Your task to perform on an android device: empty trash in google photos Image 0: 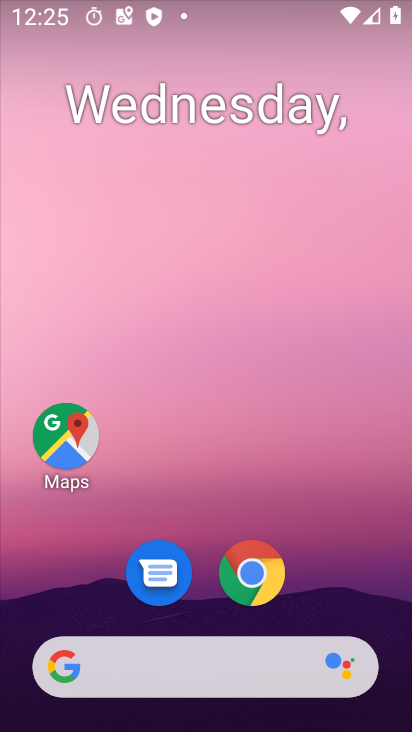
Step 0: drag from (252, 37) to (172, 0)
Your task to perform on an android device: empty trash in google photos Image 1: 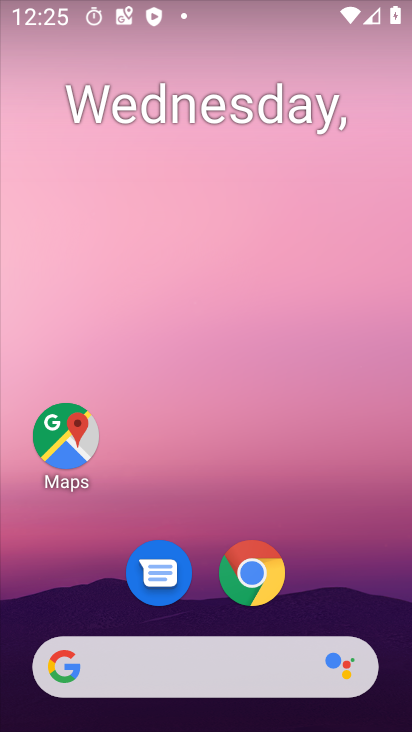
Step 1: drag from (316, 450) to (188, 37)
Your task to perform on an android device: empty trash in google photos Image 2: 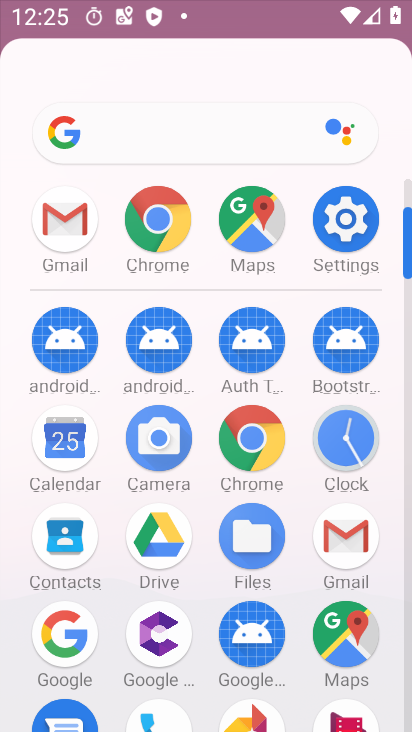
Step 2: drag from (312, 405) to (249, 5)
Your task to perform on an android device: empty trash in google photos Image 3: 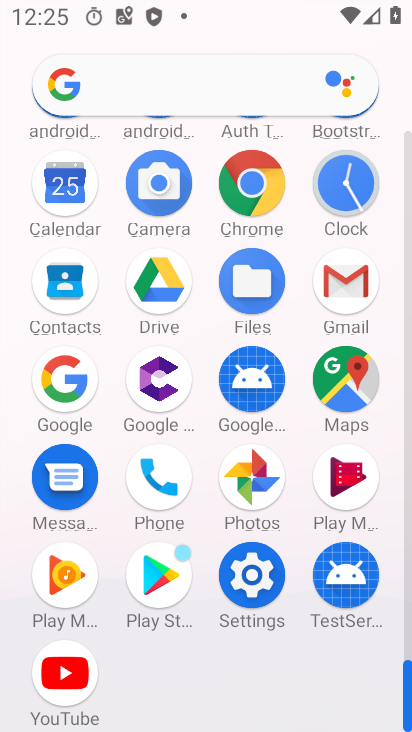
Step 3: click (247, 583)
Your task to perform on an android device: empty trash in google photos Image 4: 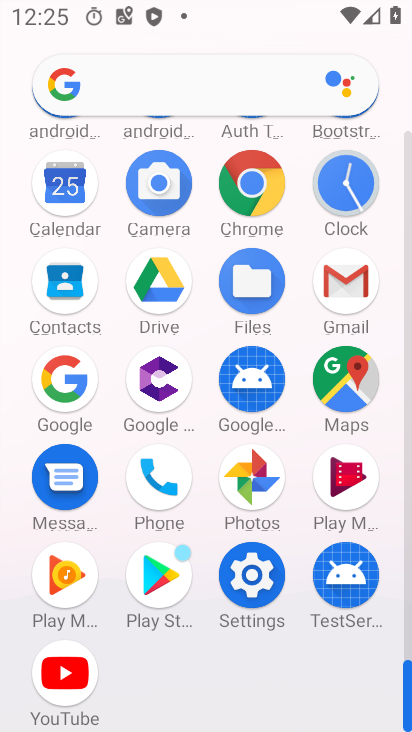
Step 4: click (245, 583)
Your task to perform on an android device: empty trash in google photos Image 5: 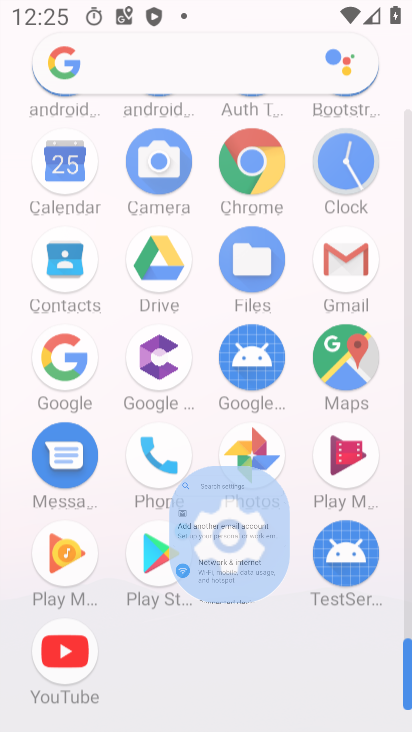
Step 5: click (245, 583)
Your task to perform on an android device: empty trash in google photos Image 6: 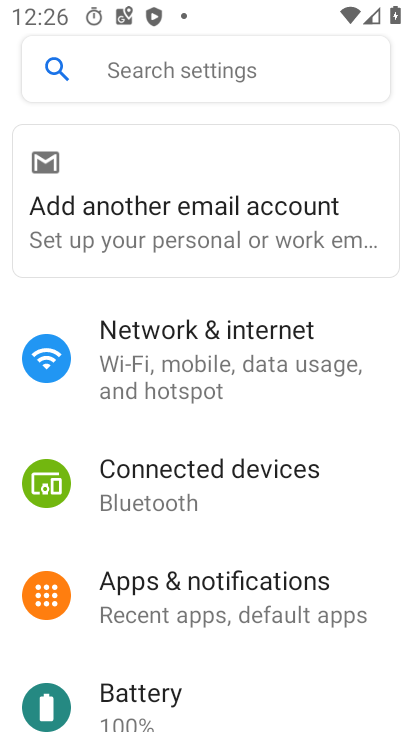
Step 6: click (165, 377)
Your task to perform on an android device: empty trash in google photos Image 7: 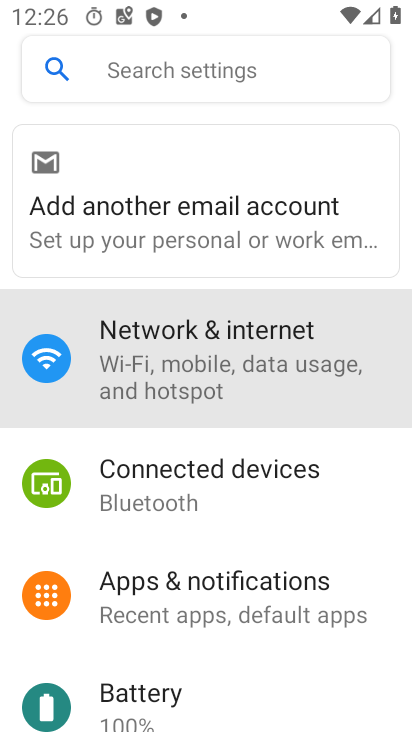
Step 7: click (165, 377)
Your task to perform on an android device: empty trash in google photos Image 8: 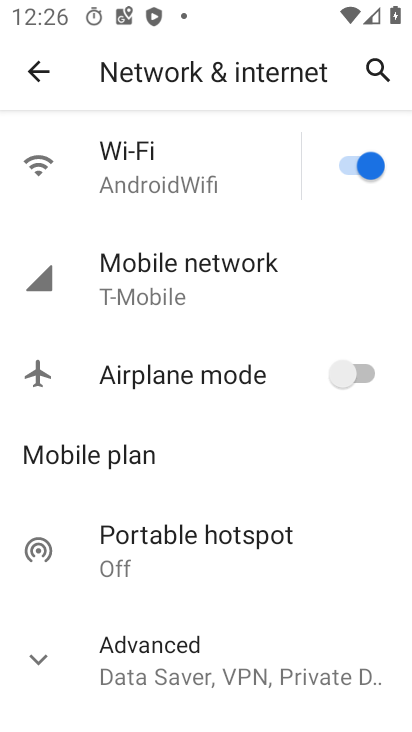
Step 8: drag from (218, 562) to (182, 176)
Your task to perform on an android device: empty trash in google photos Image 9: 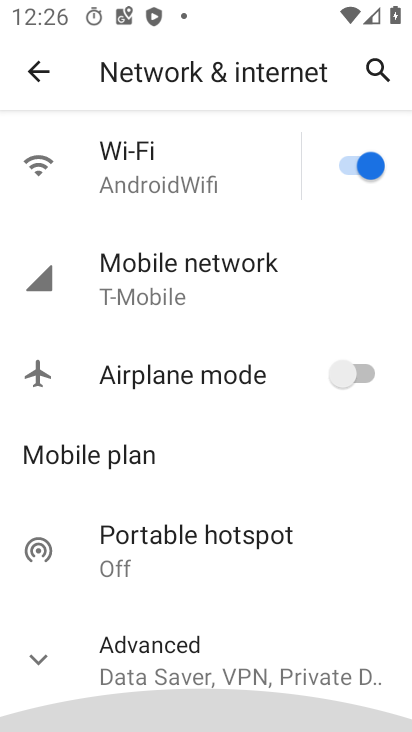
Step 9: drag from (164, 152) to (162, 56)
Your task to perform on an android device: empty trash in google photos Image 10: 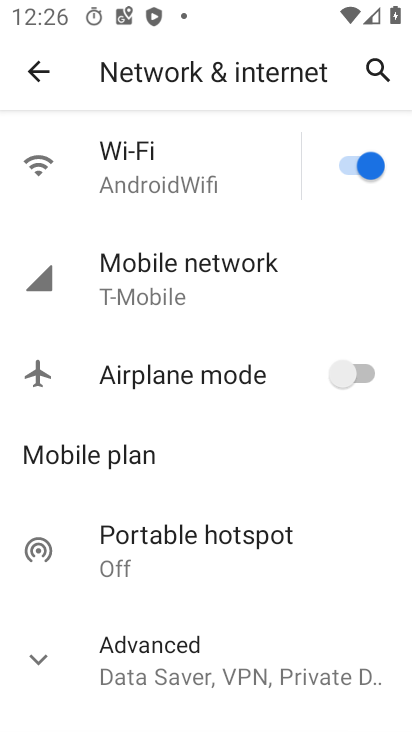
Step 10: drag from (233, 299) to (207, 31)
Your task to perform on an android device: empty trash in google photos Image 11: 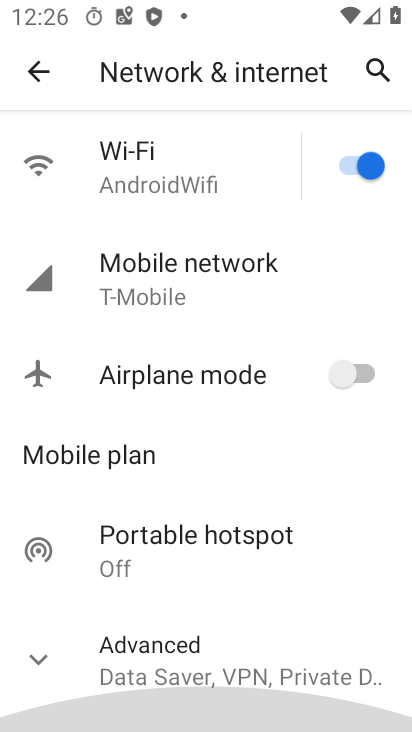
Step 11: drag from (212, 392) to (163, 87)
Your task to perform on an android device: empty trash in google photos Image 12: 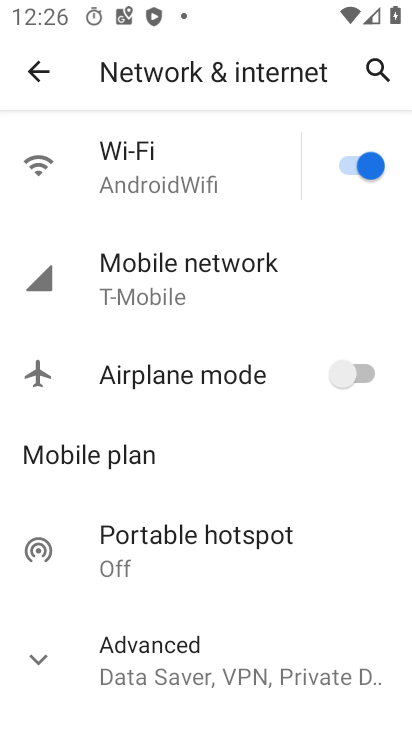
Step 12: drag from (248, 514) to (298, 229)
Your task to perform on an android device: empty trash in google photos Image 13: 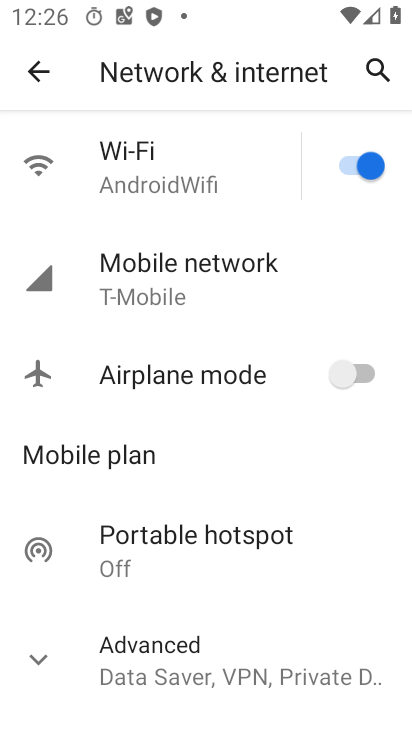
Step 13: drag from (300, 447) to (273, 148)
Your task to perform on an android device: empty trash in google photos Image 14: 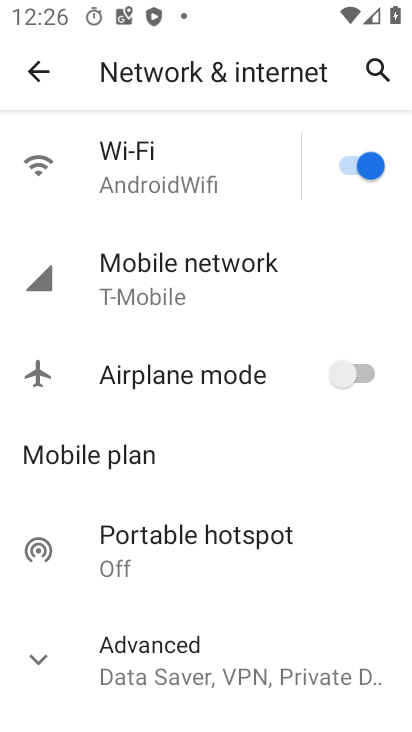
Step 14: click (37, 77)
Your task to perform on an android device: empty trash in google photos Image 15: 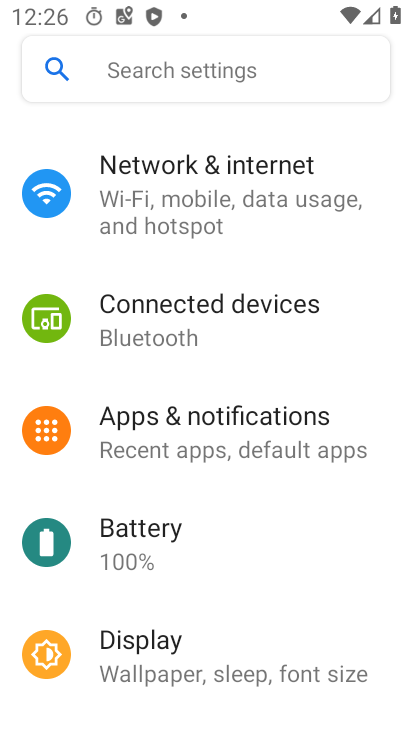
Step 15: click (37, 70)
Your task to perform on an android device: empty trash in google photos Image 16: 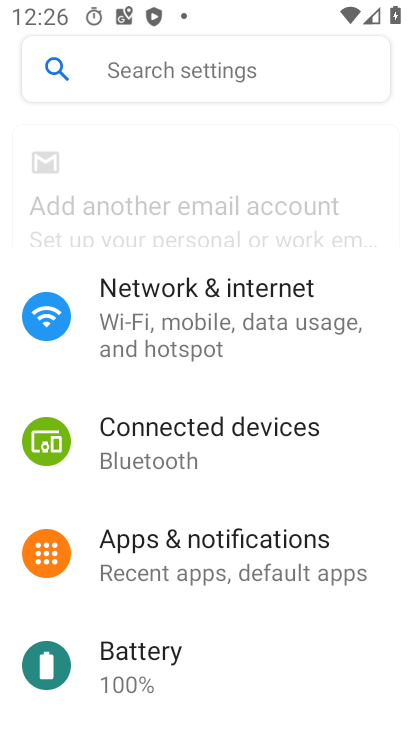
Step 16: click (40, 72)
Your task to perform on an android device: empty trash in google photos Image 17: 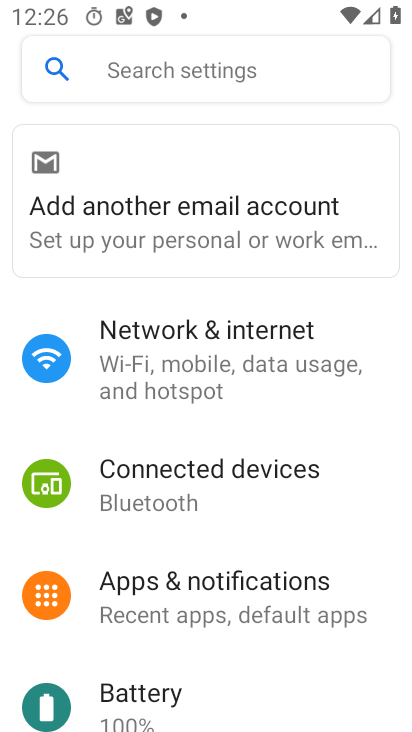
Step 17: drag from (245, 438) to (218, 95)
Your task to perform on an android device: empty trash in google photos Image 18: 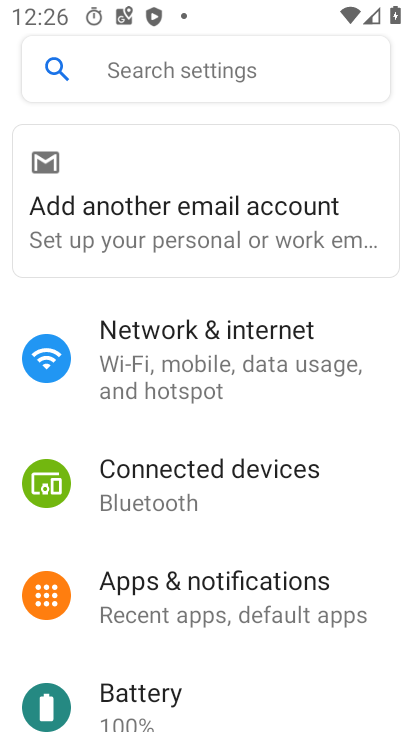
Step 18: click (257, 133)
Your task to perform on an android device: empty trash in google photos Image 19: 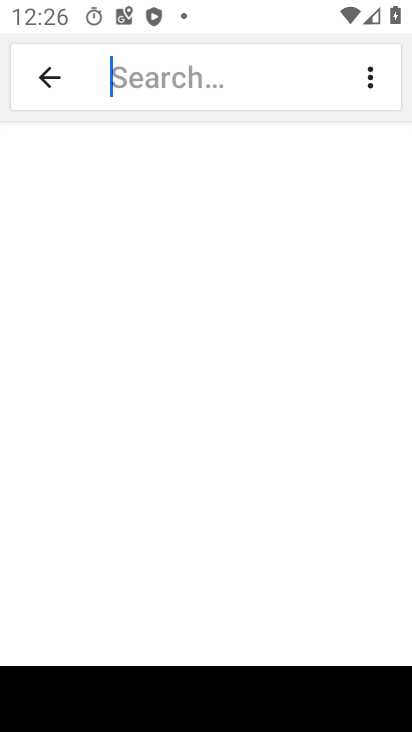
Step 19: drag from (289, 637) to (279, 89)
Your task to perform on an android device: empty trash in google photos Image 20: 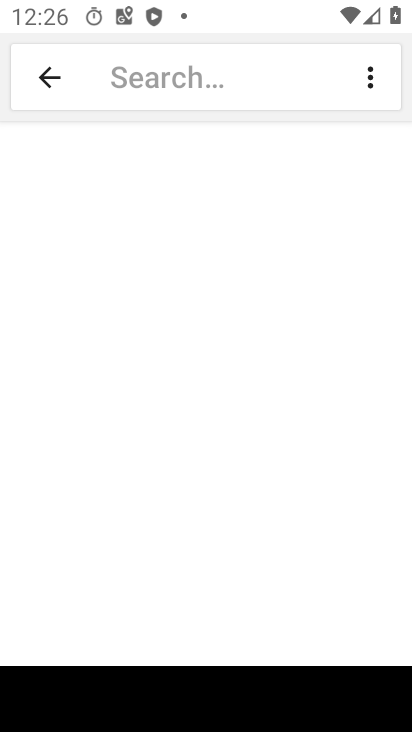
Step 20: drag from (247, 606) to (252, 43)
Your task to perform on an android device: empty trash in google photos Image 21: 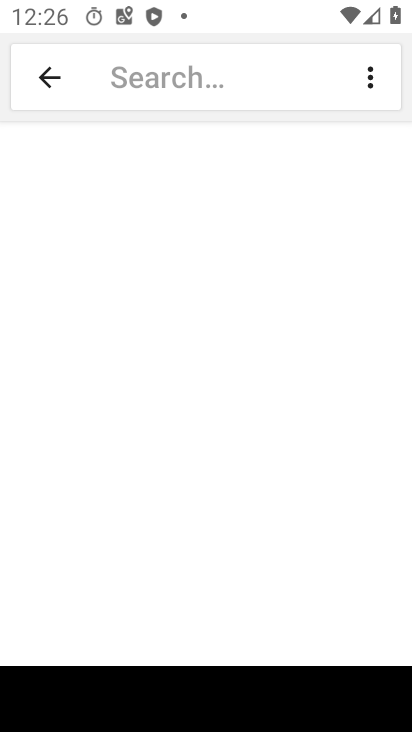
Step 21: press back button
Your task to perform on an android device: empty trash in google photos Image 22: 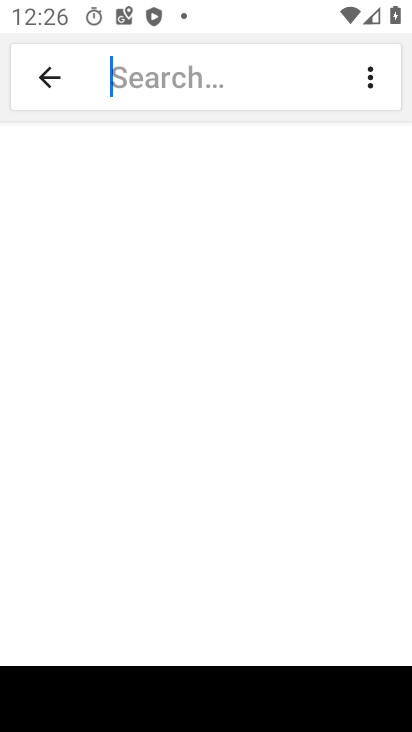
Step 22: press back button
Your task to perform on an android device: empty trash in google photos Image 23: 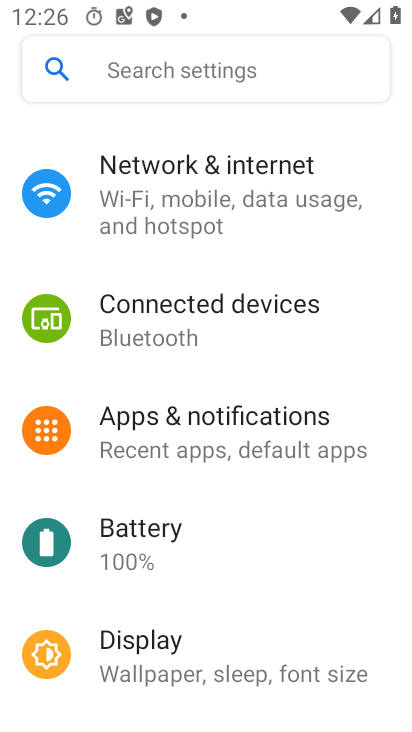
Step 23: press back button
Your task to perform on an android device: empty trash in google photos Image 24: 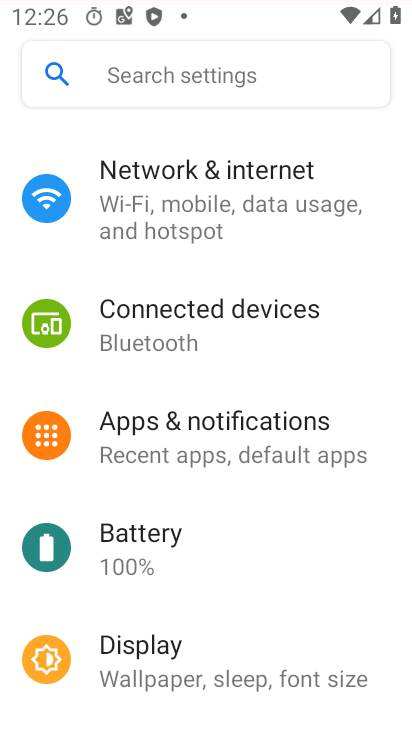
Step 24: click (43, 82)
Your task to perform on an android device: empty trash in google photos Image 25: 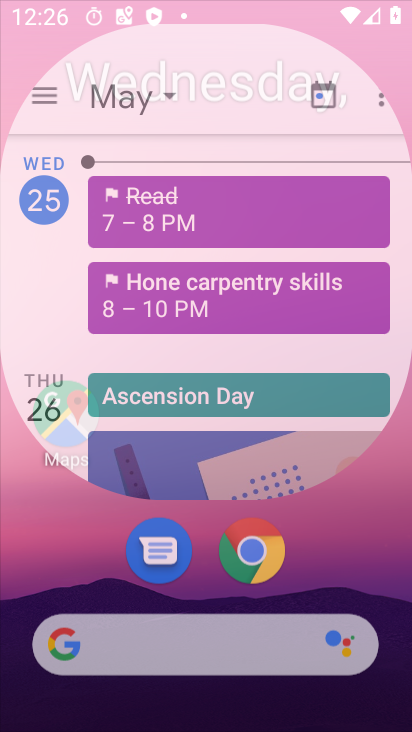
Step 25: drag from (216, 459) to (212, 207)
Your task to perform on an android device: empty trash in google photos Image 26: 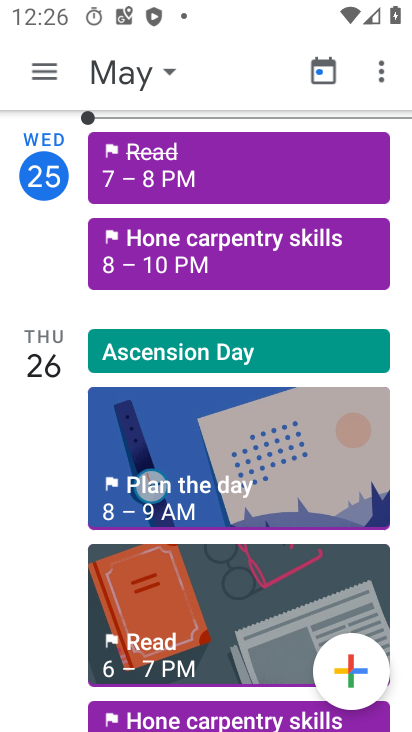
Step 26: drag from (274, 403) to (242, 70)
Your task to perform on an android device: empty trash in google photos Image 27: 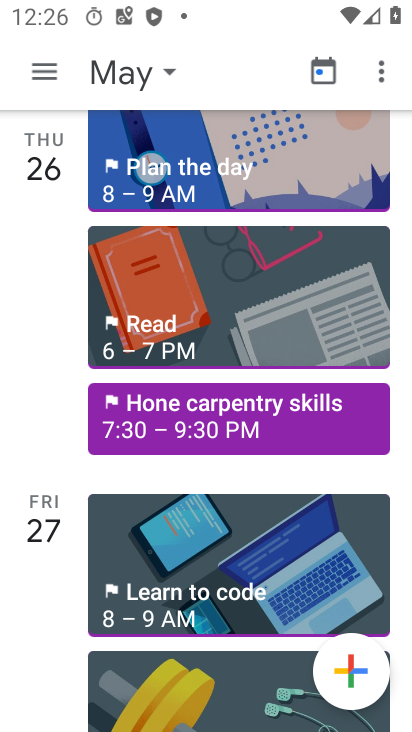
Step 27: click (164, 72)
Your task to perform on an android device: empty trash in google photos Image 28: 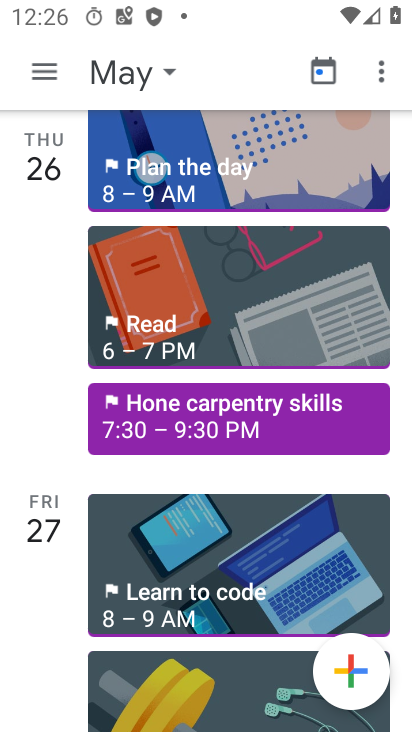
Step 28: click (164, 72)
Your task to perform on an android device: empty trash in google photos Image 29: 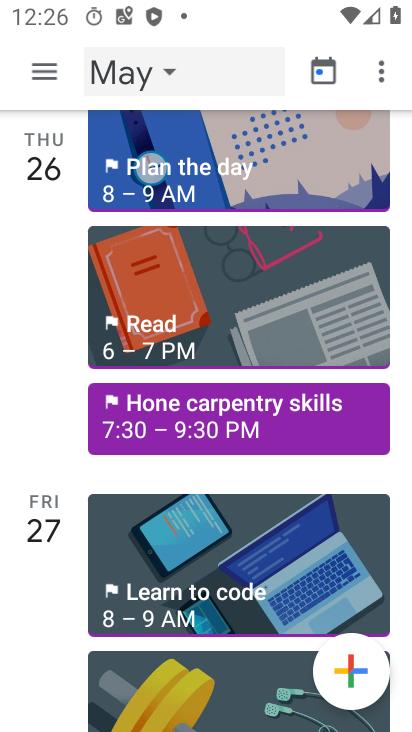
Step 29: click (164, 72)
Your task to perform on an android device: empty trash in google photos Image 30: 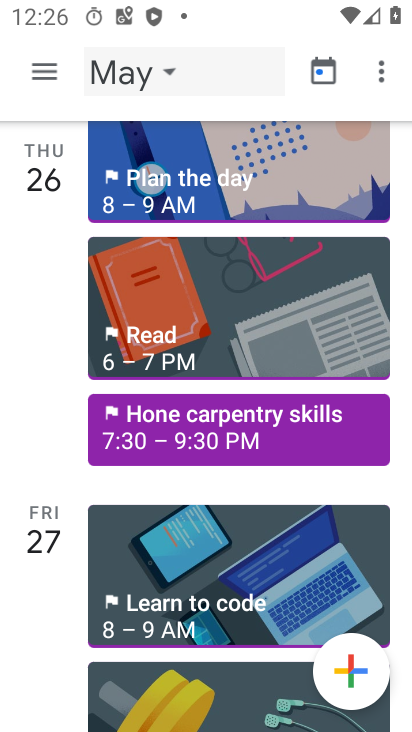
Step 30: click (164, 71)
Your task to perform on an android device: empty trash in google photos Image 31: 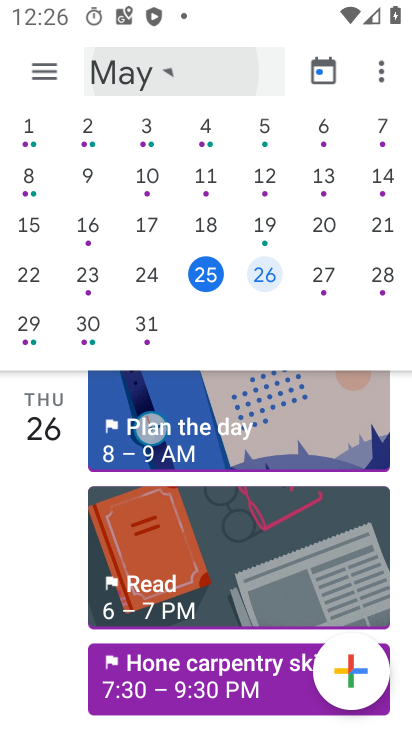
Step 31: click (164, 71)
Your task to perform on an android device: empty trash in google photos Image 32: 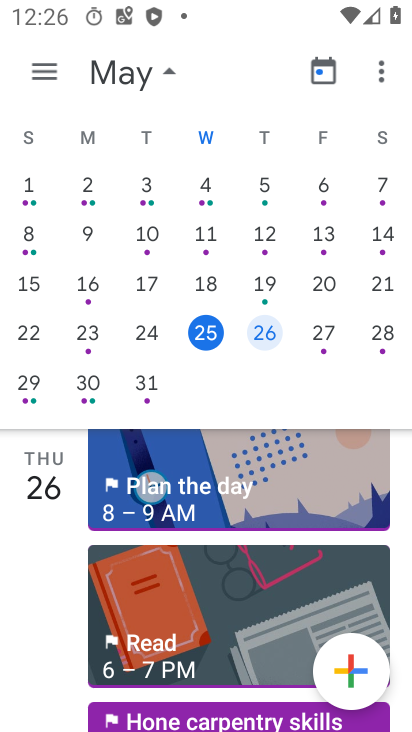
Step 32: press back button
Your task to perform on an android device: empty trash in google photos Image 33: 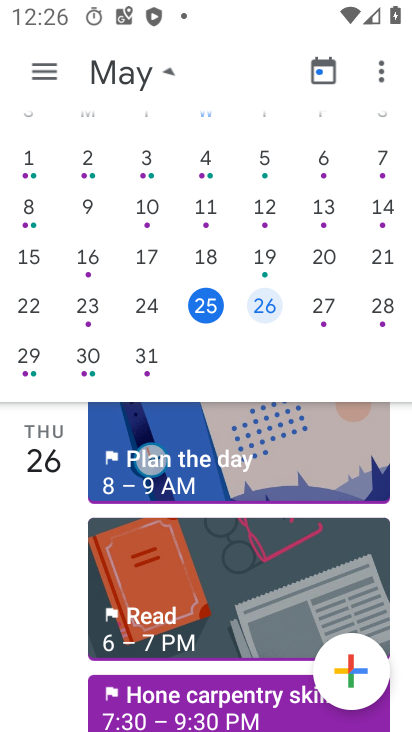
Step 33: press back button
Your task to perform on an android device: empty trash in google photos Image 34: 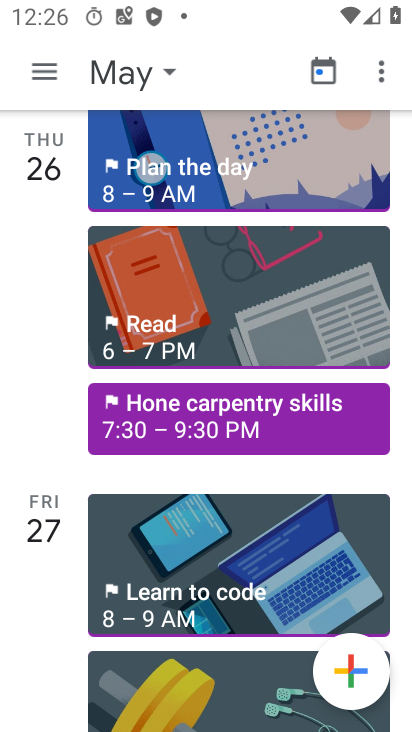
Step 34: press back button
Your task to perform on an android device: empty trash in google photos Image 35: 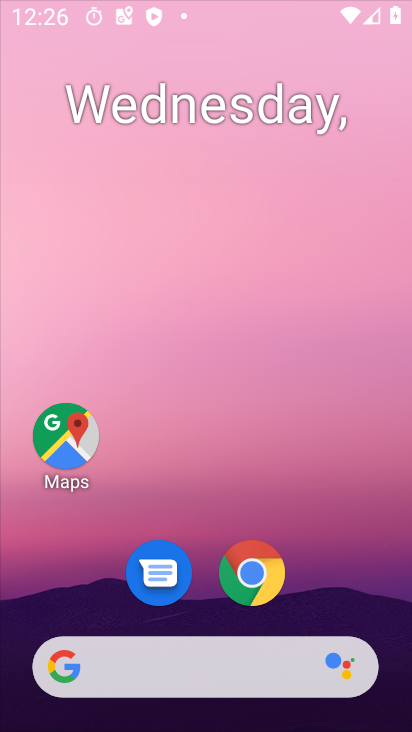
Step 35: press back button
Your task to perform on an android device: empty trash in google photos Image 36: 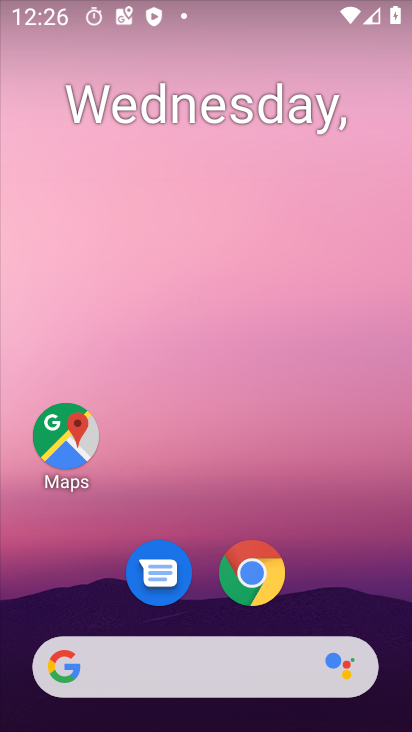
Step 36: drag from (283, 596) to (161, 250)
Your task to perform on an android device: empty trash in google photos Image 37: 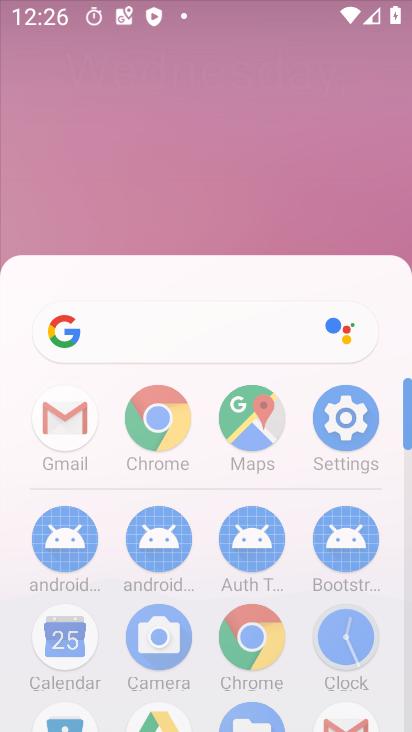
Step 37: drag from (284, 634) to (209, 161)
Your task to perform on an android device: empty trash in google photos Image 38: 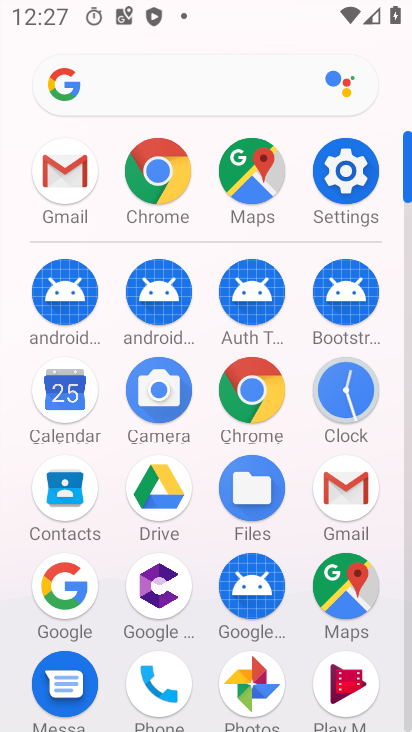
Step 38: drag from (190, 80) to (161, 174)
Your task to perform on an android device: empty trash in google photos Image 39: 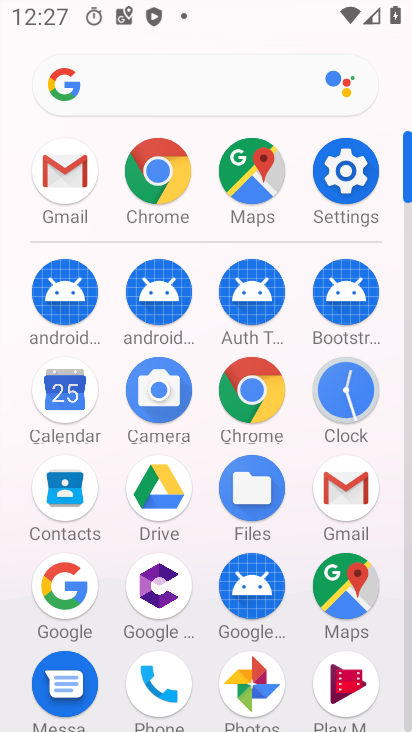
Step 39: drag from (216, 437) to (216, 229)
Your task to perform on an android device: empty trash in google photos Image 40: 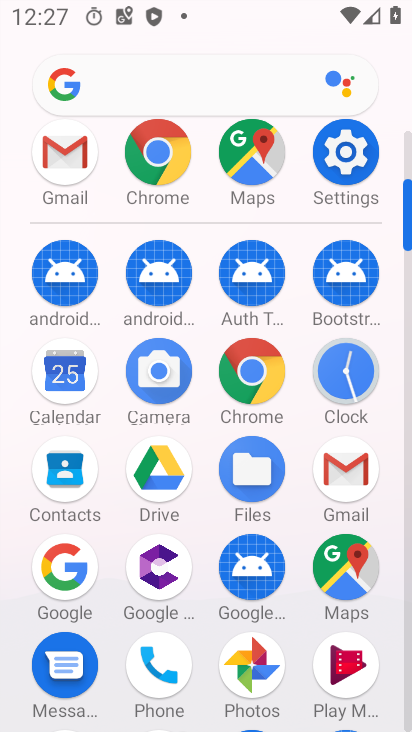
Step 40: click (251, 656)
Your task to perform on an android device: empty trash in google photos Image 41: 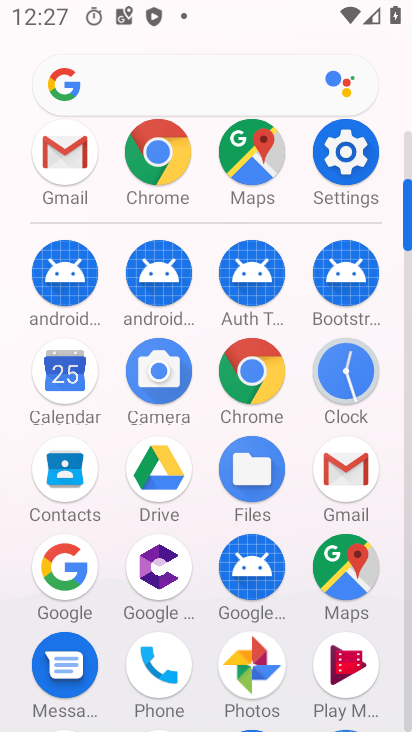
Step 41: click (251, 657)
Your task to perform on an android device: empty trash in google photos Image 42: 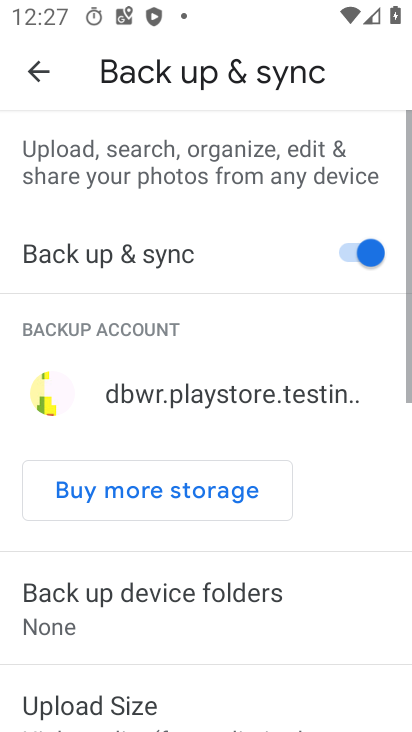
Step 42: click (255, 661)
Your task to perform on an android device: empty trash in google photos Image 43: 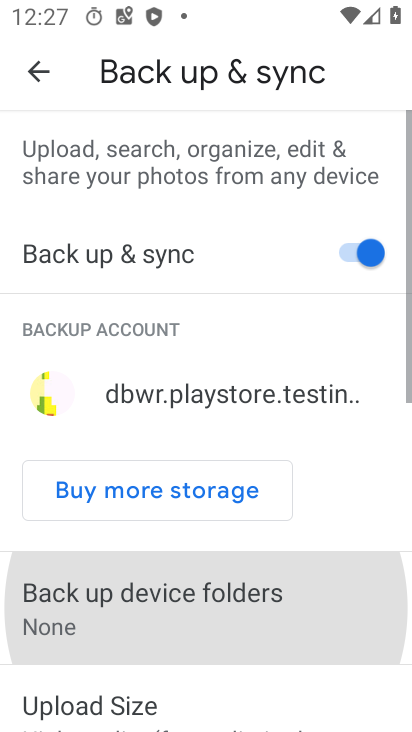
Step 43: click (255, 661)
Your task to perform on an android device: empty trash in google photos Image 44: 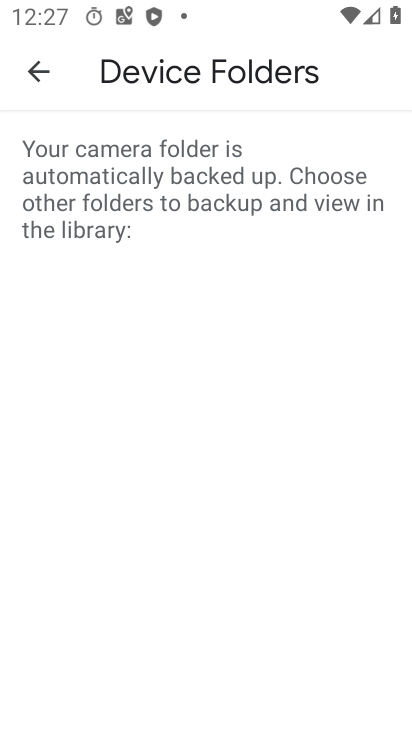
Step 44: click (20, 75)
Your task to perform on an android device: empty trash in google photos Image 45: 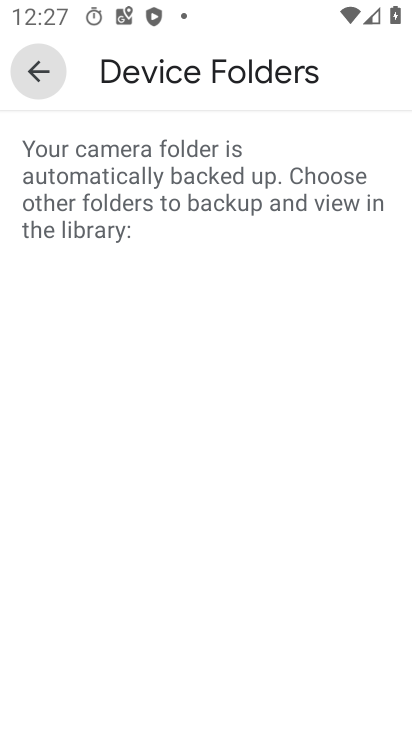
Step 45: click (20, 75)
Your task to perform on an android device: empty trash in google photos Image 46: 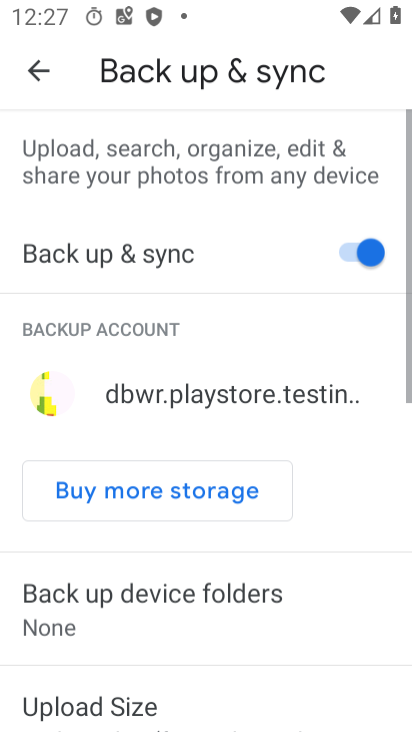
Step 46: click (20, 75)
Your task to perform on an android device: empty trash in google photos Image 47: 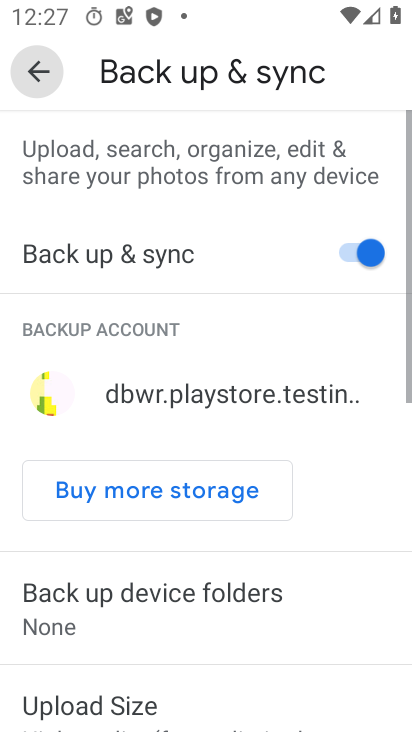
Step 47: click (25, 70)
Your task to perform on an android device: empty trash in google photos Image 48: 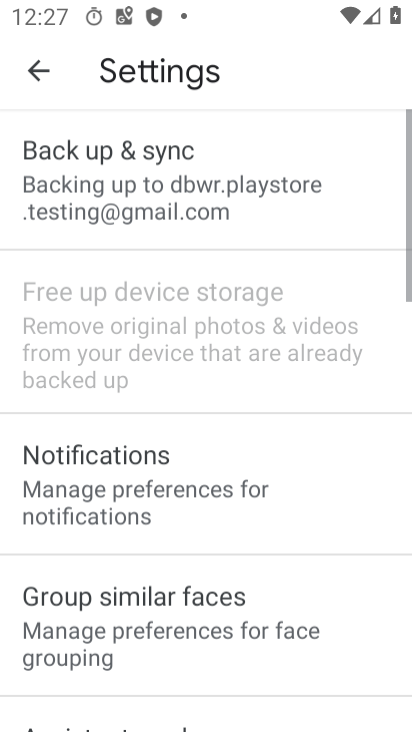
Step 48: click (26, 68)
Your task to perform on an android device: empty trash in google photos Image 49: 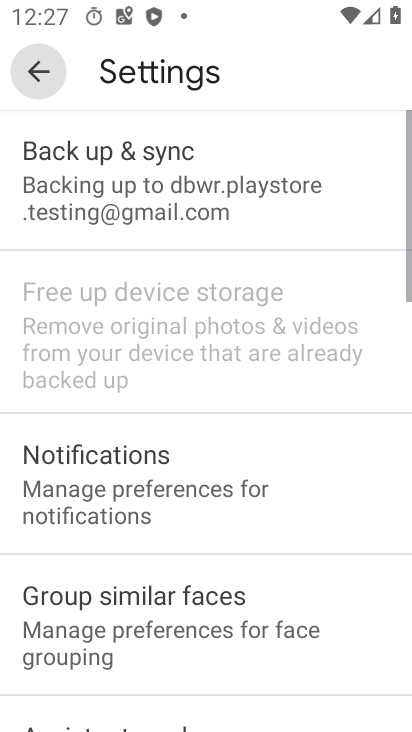
Step 49: click (28, 66)
Your task to perform on an android device: empty trash in google photos Image 50: 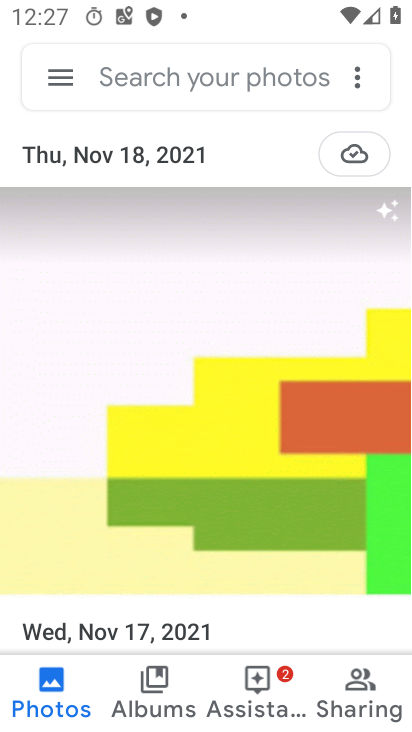
Step 50: task complete